Your task to perform on an android device: What's on my calendar tomorrow? Image 0: 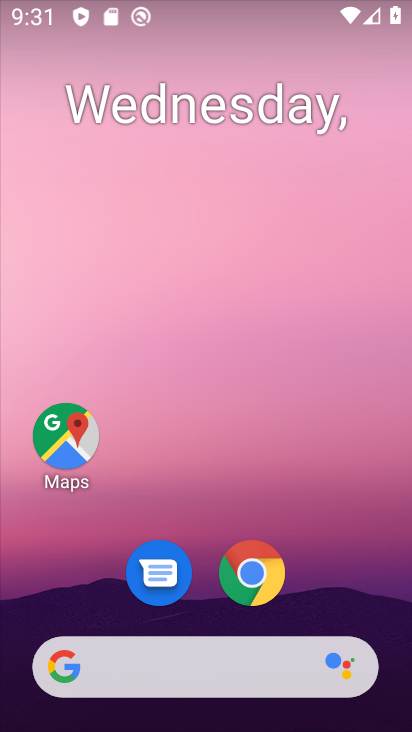
Step 0: drag from (344, 569) to (344, 295)
Your task to perform on an android device: What's on my calendar tomorrow? Image 1: 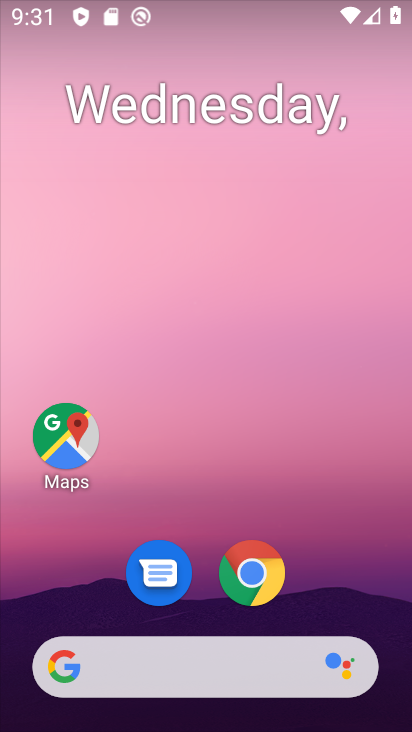
Step 1: drag from (325, 596) to (263, 183)
Your task to perform on an android device: What's on my calendar tomorrow? Image 2: 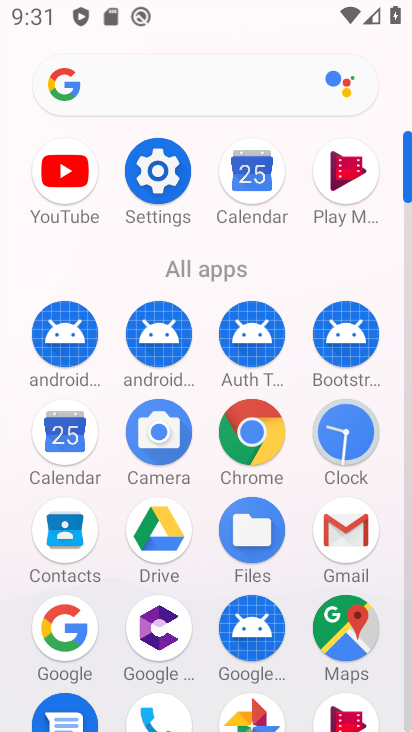
Step 2: click (65, 432)
Your task to perform on an android device: What's on my calendar tomorrow? Image 3: 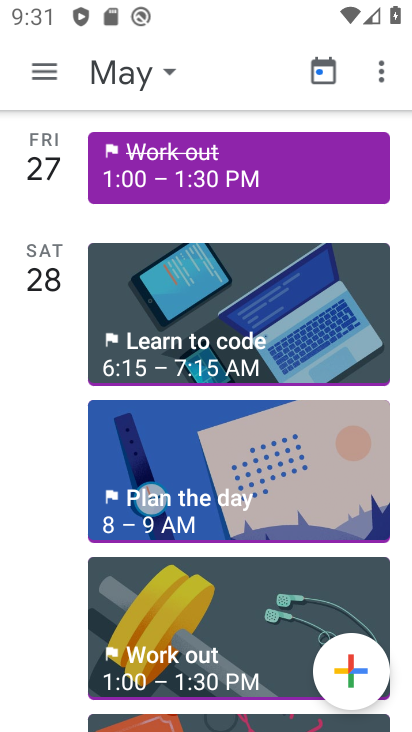
Step 3: task complete